Your task to perform on an android device: Go to Maps Image 0: 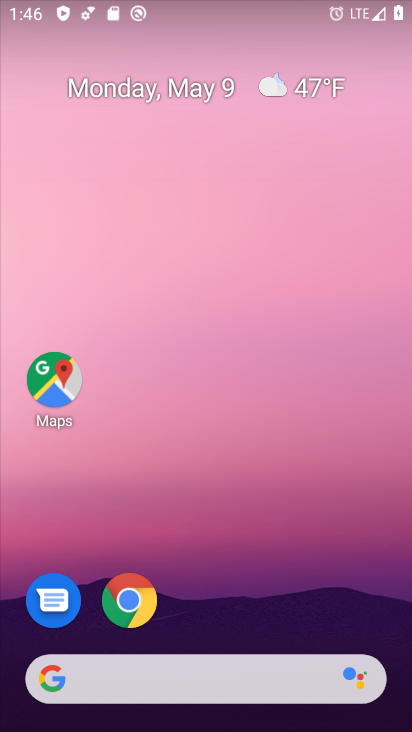
Step 0: click (59, 391)
Your task to perform on an android device: Go to Maps Image 1: 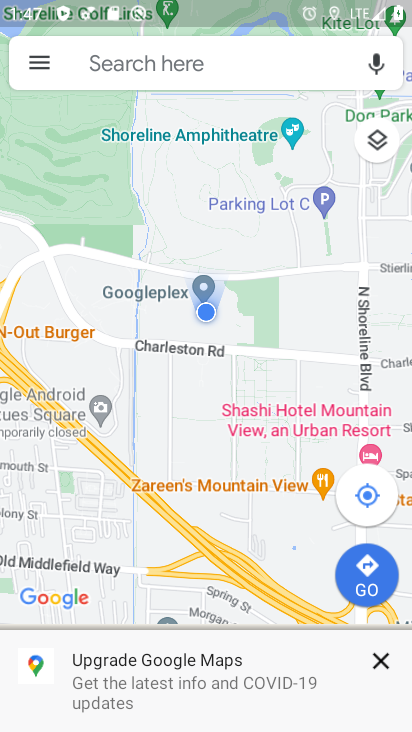
Step 1: task complete